Your task to perform on an android device: Open network settings Image 0: 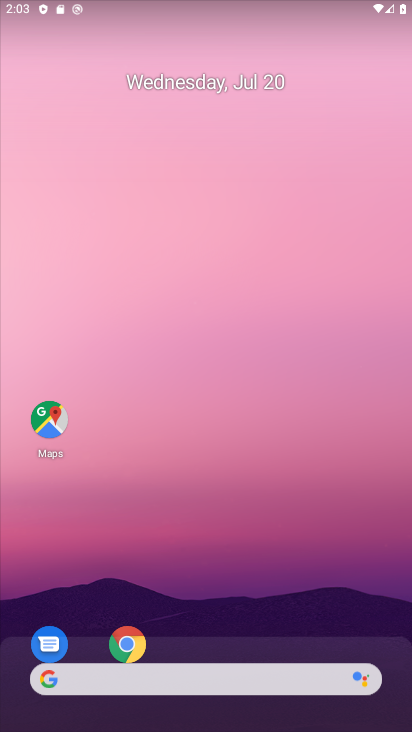
Step 0: task complete